Your task to perform on an android device: turn off airplane mode Image 0: 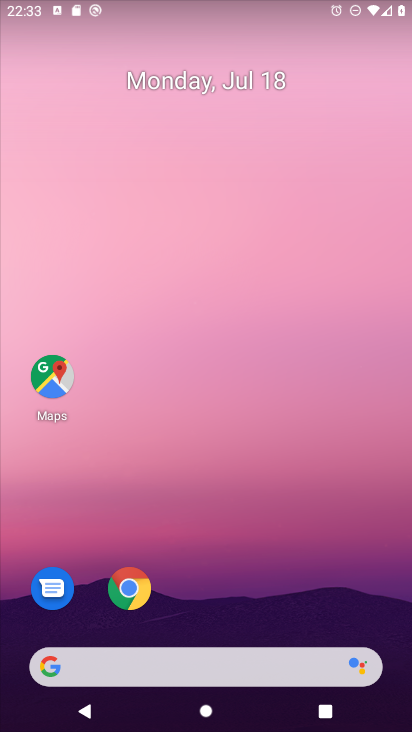
Step 0: drag from (387, 614) to (329, 108)
Your task to perform on an android device: turn off airplane mode Image 1: 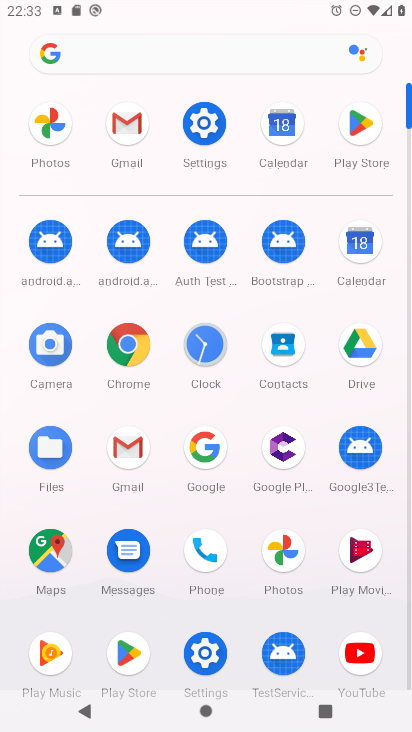
Step 1: click (205, 653)
Your task to perform on an android device: turn off airplane mode Image 2: 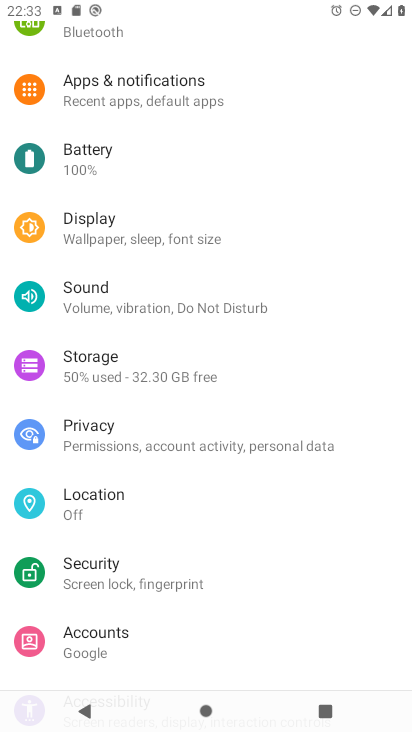
Step 2: drag from (295, 165) to (261, 483)
Your task to perform on an android device: turn off airplane mode Image 3: 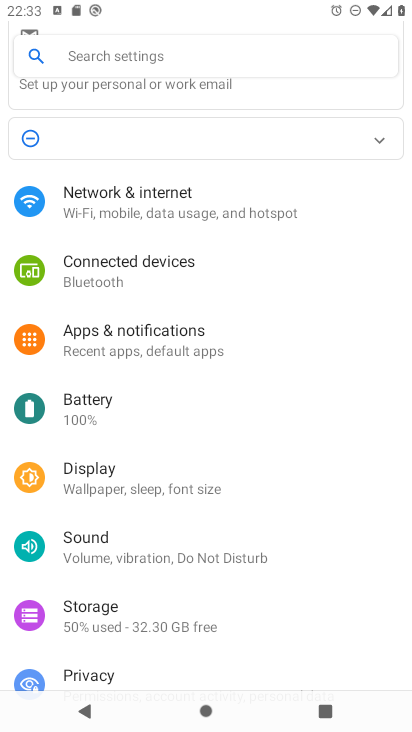
Step 3: click (111, 198)
Your task to perform on an android device: turn off airplane mode Image 4: 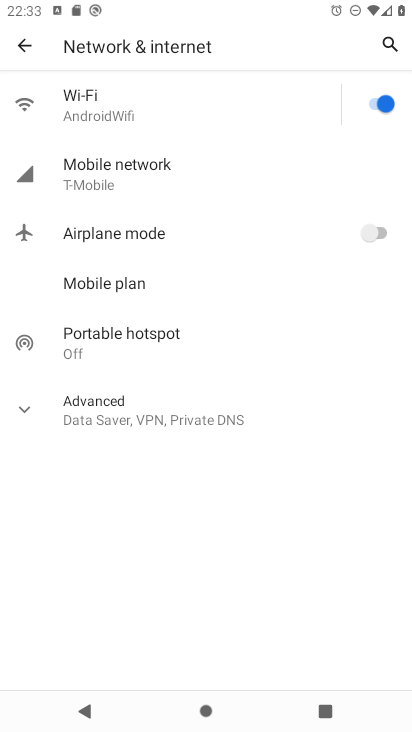
Step 4: task complete